Your task to perform on an android device: Open calendar and show me the first week of next month Image 0: 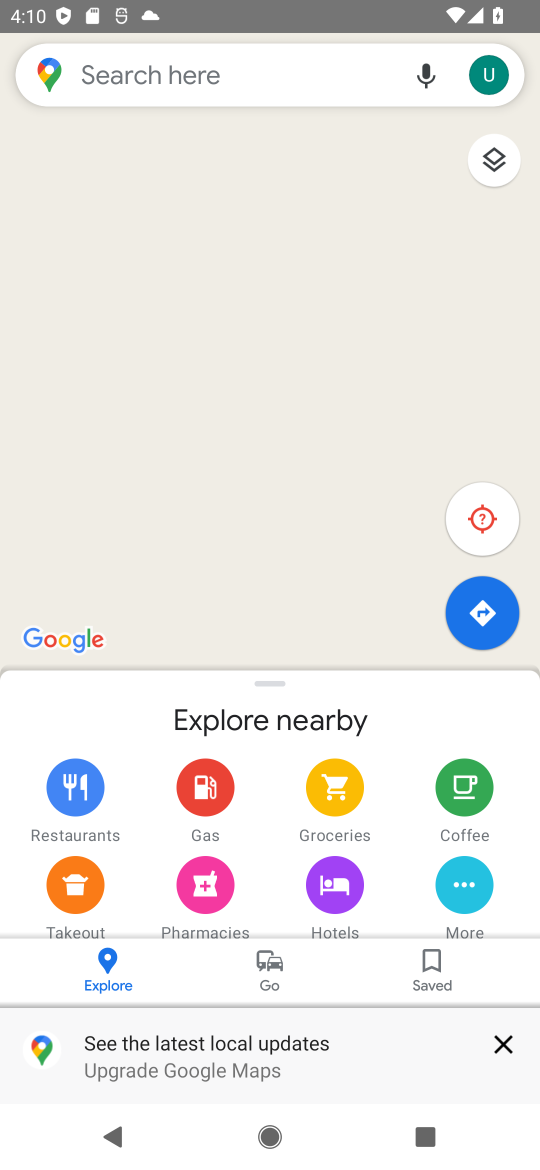
Step 0: press home button
Your task to perform on an android device: Open calendar and show me the first week of next month Image 1: 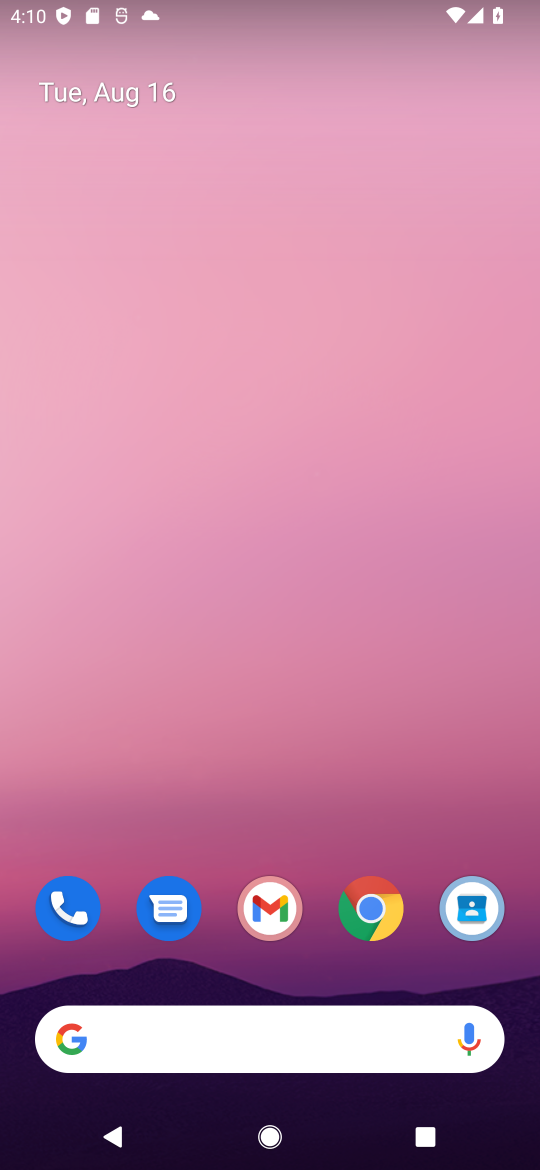
Step 1: drag from (318, 875) to (315, 54)
Your task to perform on an android device: Open calendar and show me the first week of next month Image 2: 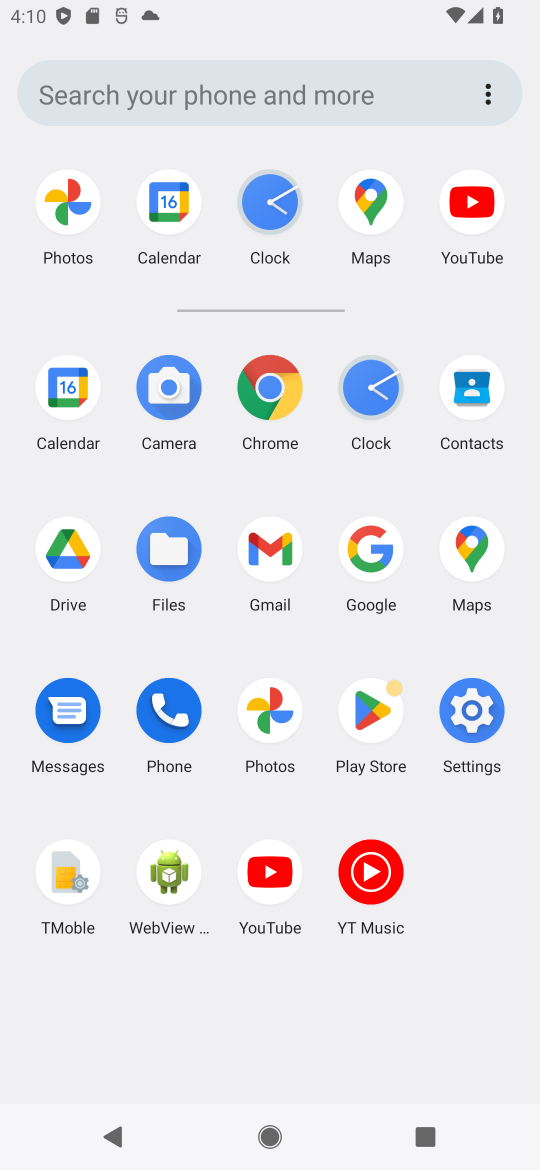
Step 2: click (64, 376)
Your task to perform on an android device: Open calendar and show me the first week of next month Image 3: 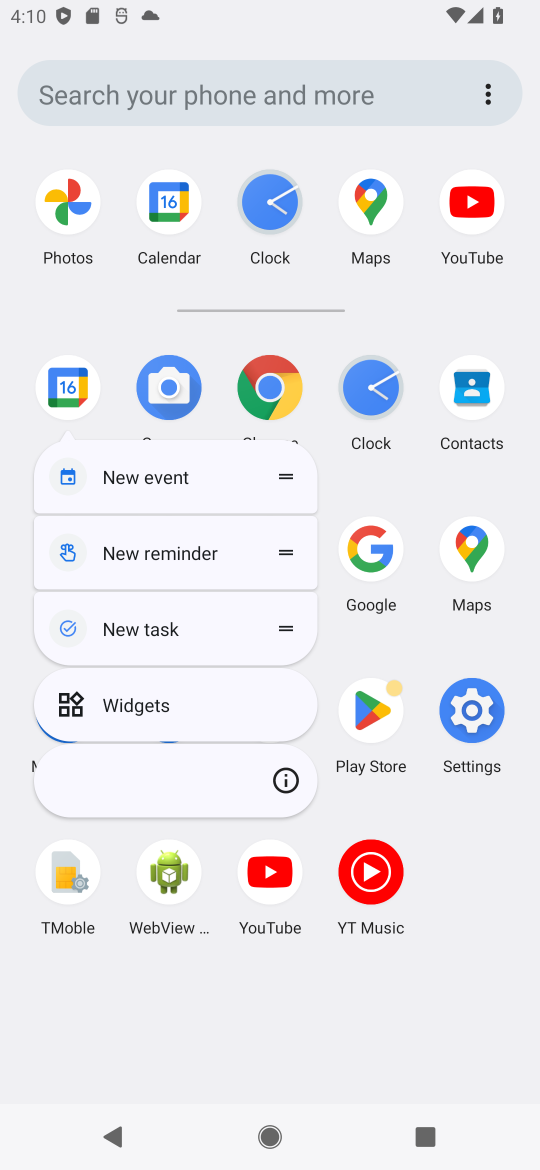
Step 3: click (64, 376)
Your task to perform on an android device: Open calendar and show me the first week of next month Image 4: 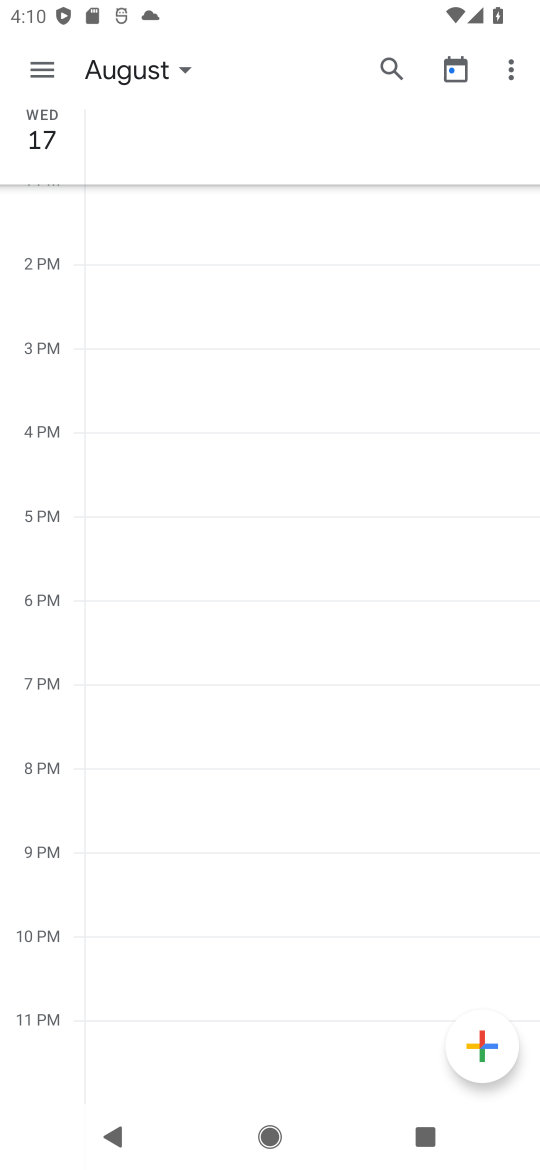
Step 4: click (37, 60)
Your task to perform on an android device: Open calendar and show me the first week of next month Image 5: 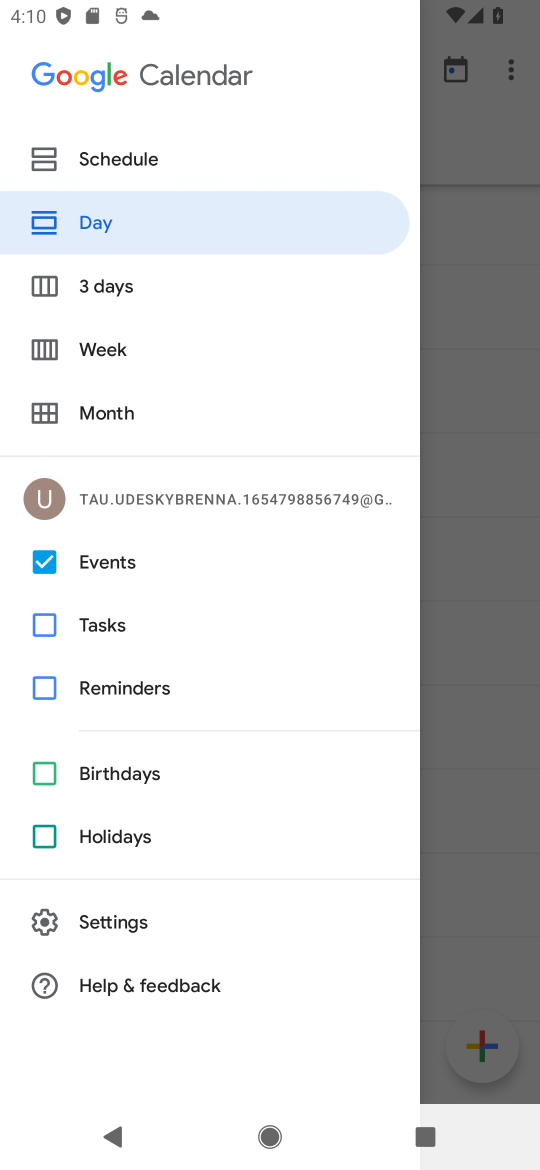
Step 5: click (115, 333)
Your task to perform on an android device: Open calendar and show me the first week of next month Image 6: 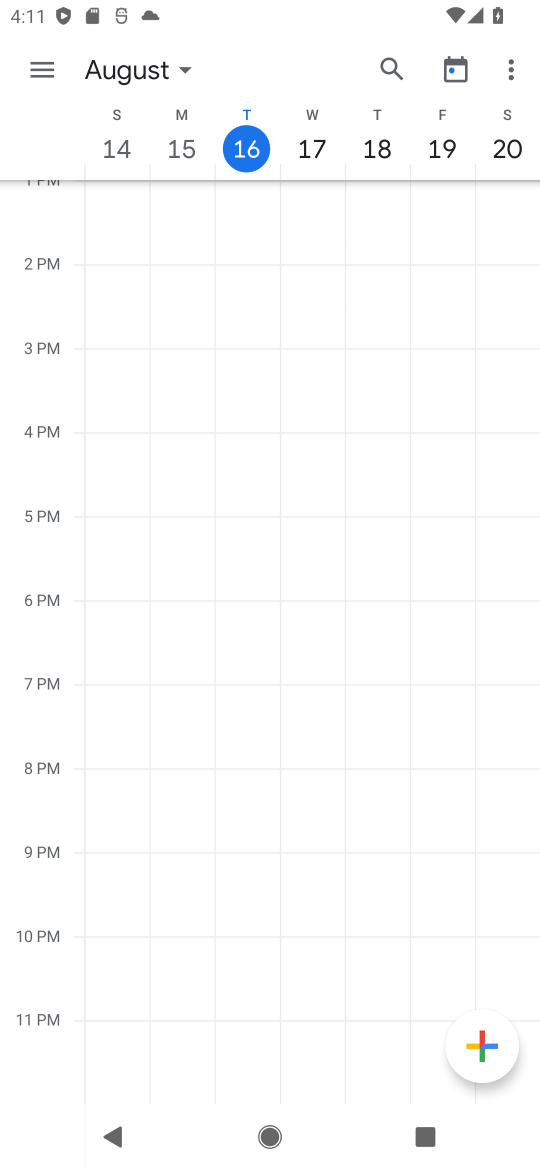
Step 6: click (181, 65)
Your task to perform on an android device: Open calendar and show me the first week of next month Image 7: 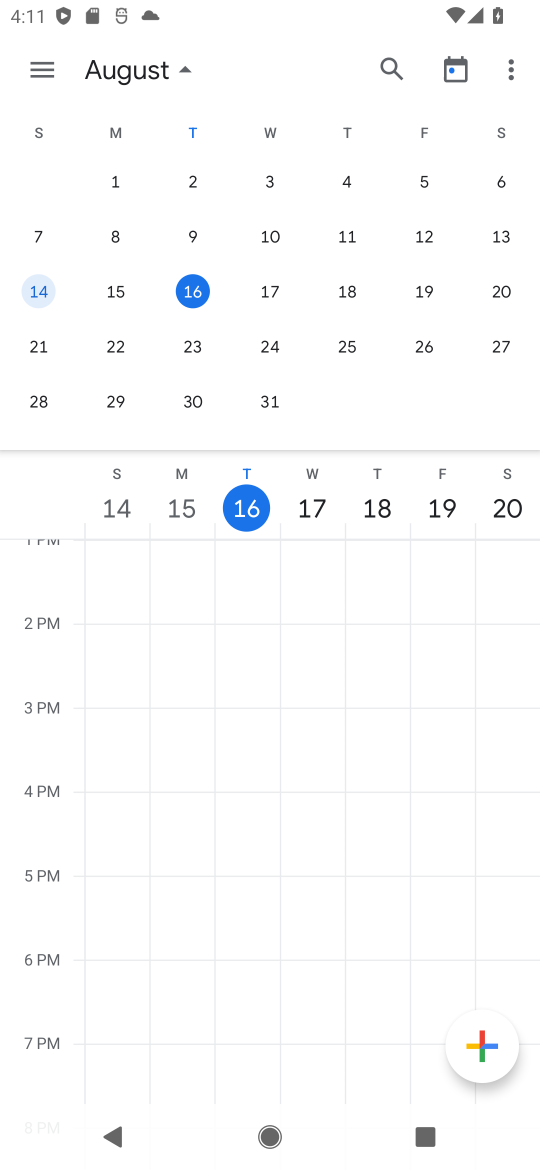
Step 7: drag from (492, 279) to (62, 278)
Your task to perform on an android device: Open calendar and show me the first week of next month Image 8: 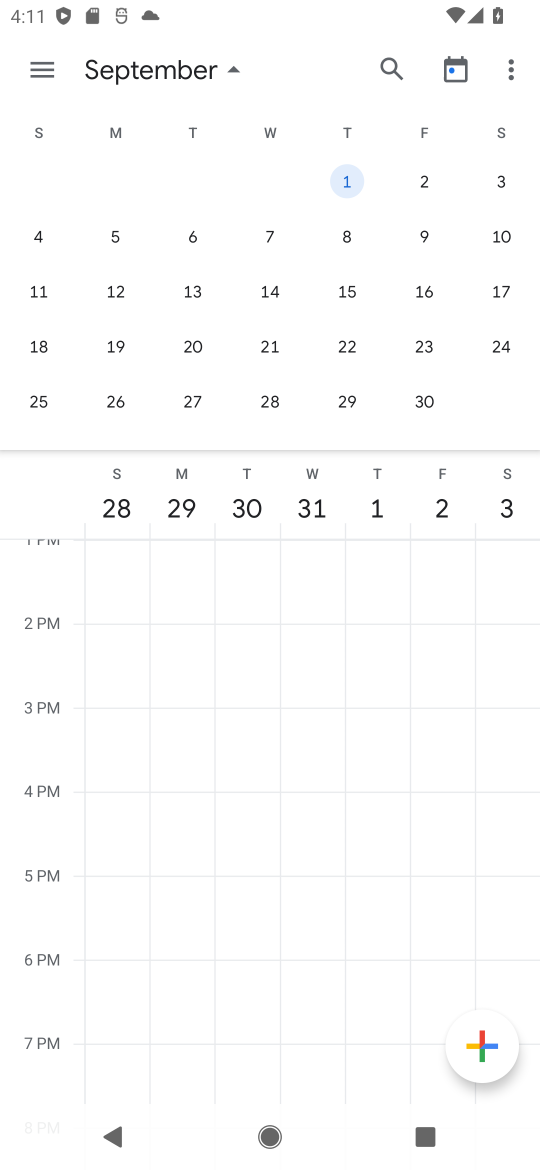
Step 8: click (31, 231)
Your task to perform on an android device: Open calendar and show me the first week of next month Image 9: 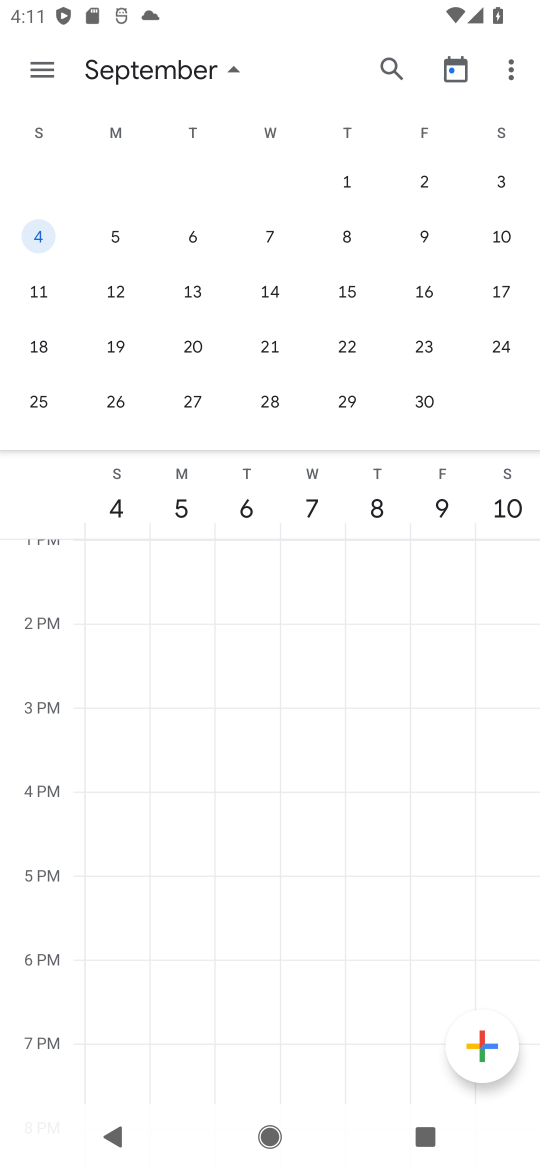
Step 9: task complete